Your task to perform on an android device: change notifications settings Image 0: 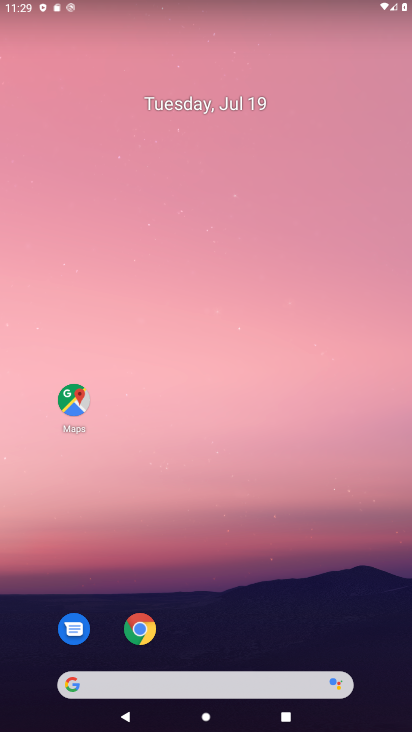
Step 0: drag from (327, 607) to (332, 111)
Your task to perform on an android device: change notifications settings Image 1: 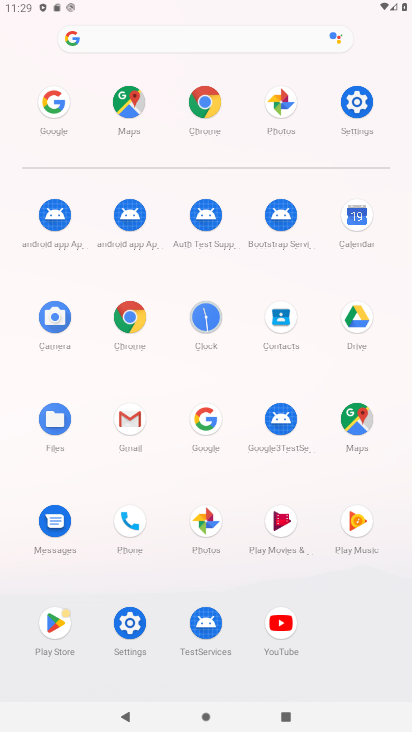
Step 1: click (131, 628)
Your task to perform on an android device: change notifications settings Image 2: 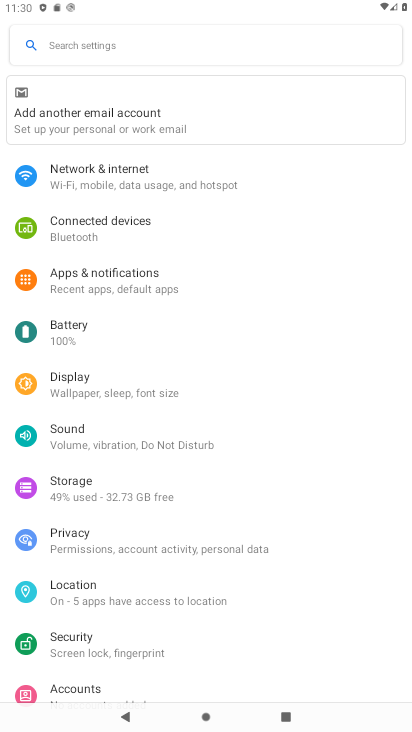
Step 2: click (215, 284)
Your task to perform on an android device: change notifications settings Image 3: 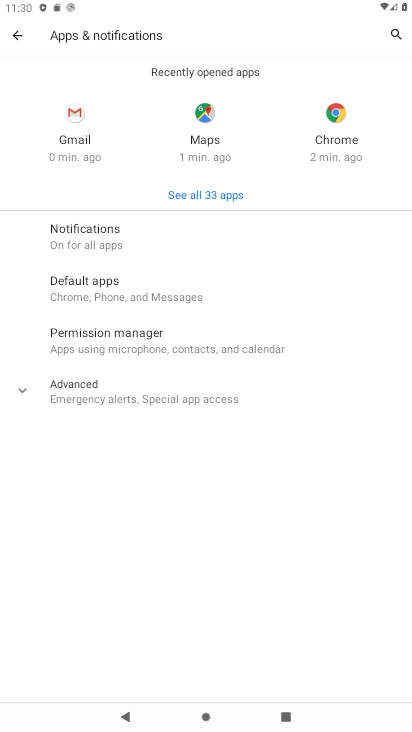
Step 3: click (210, 252)
Your task to perform on an android device: change notifications settings Image 4: 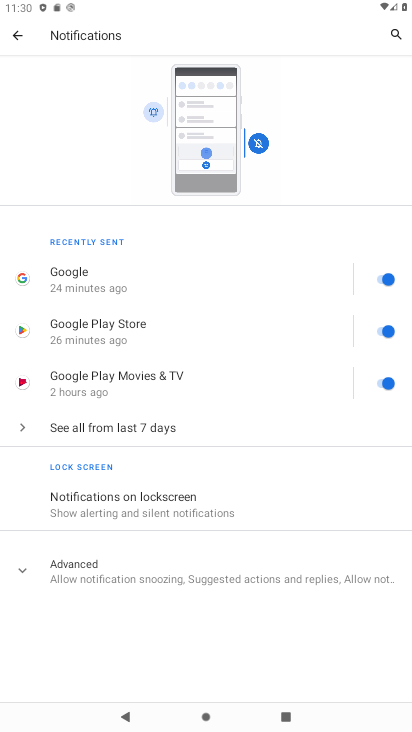
Step 4: click (396, 381)
Your task to perform on an android device: change notifications settings Image 5: 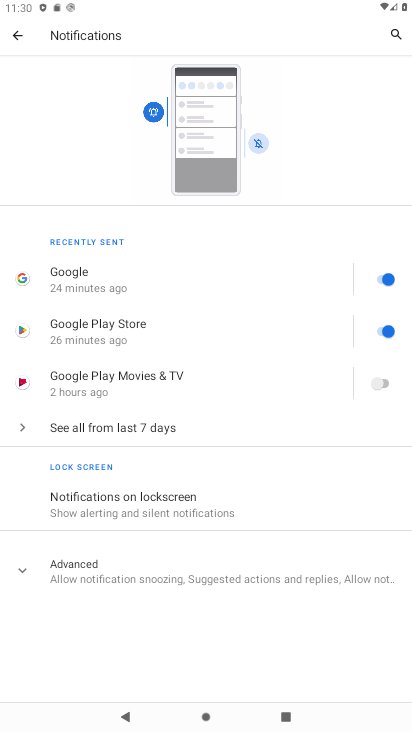
Step 5: click (390, 333)
Your task to perform on an android device: change notifications settings Image 6: 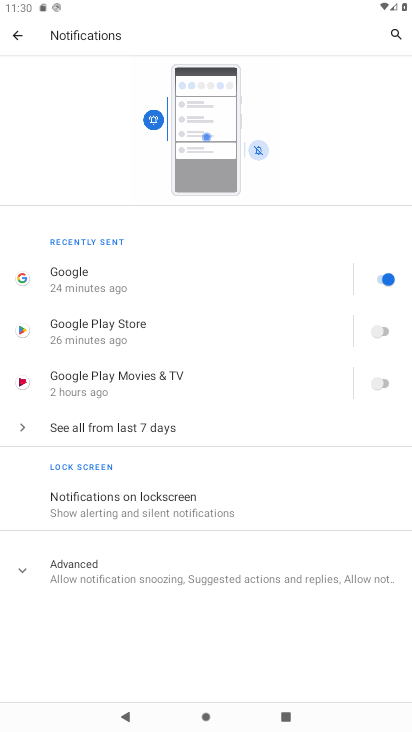
Step 6: click (389, 288)
Your task to perform on an android device: change notifications settings Image 7: 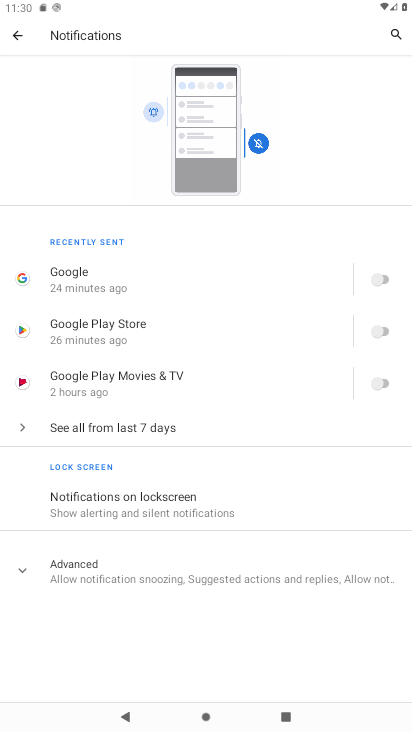
Step 7: task complete